Your task to perform on an android device: toggle notification dots Image 0: 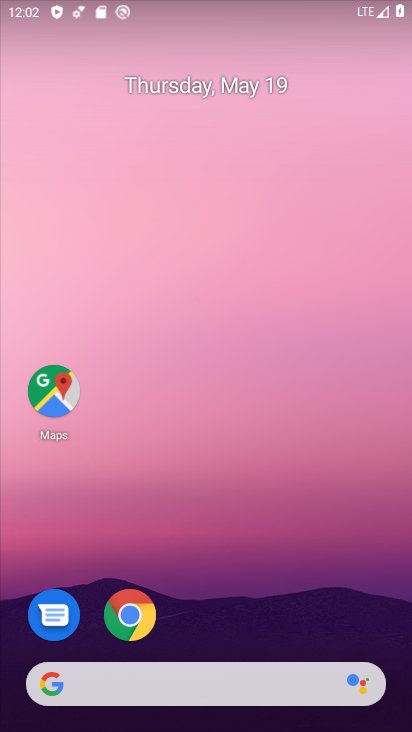
Step 0: click (284, 19)
Your task to perform on an android device: toggle notification dots Image 1: 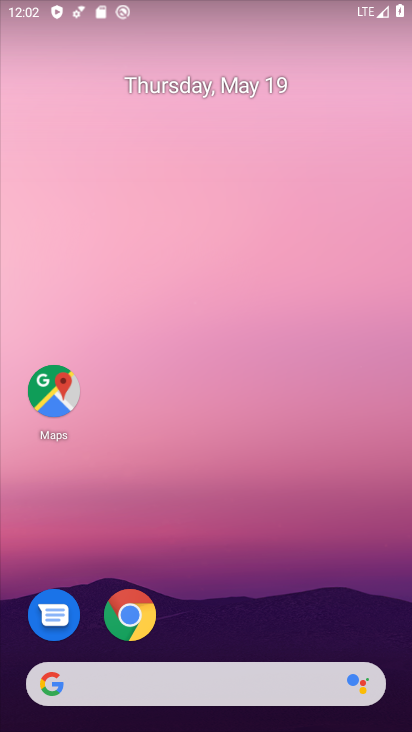
Step 1: drag from (221, 445) to (211, 9)
Your task to perform on an android device: toggle notification dots Image 2: 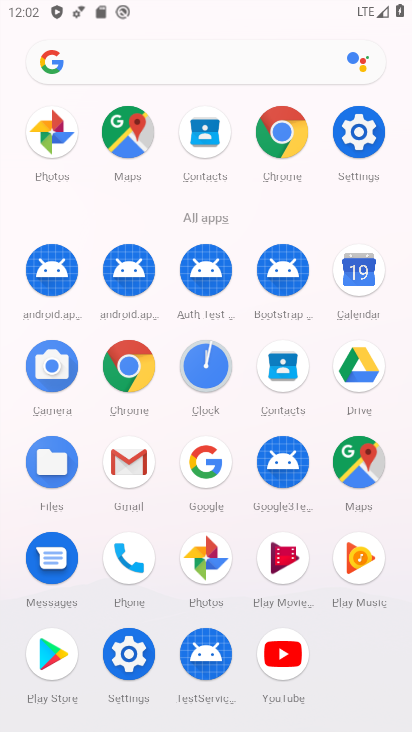
Step 2: drag from (4, 569) to (2, 291)
Your task to perform on an android device: toggle notification dots Image 3: 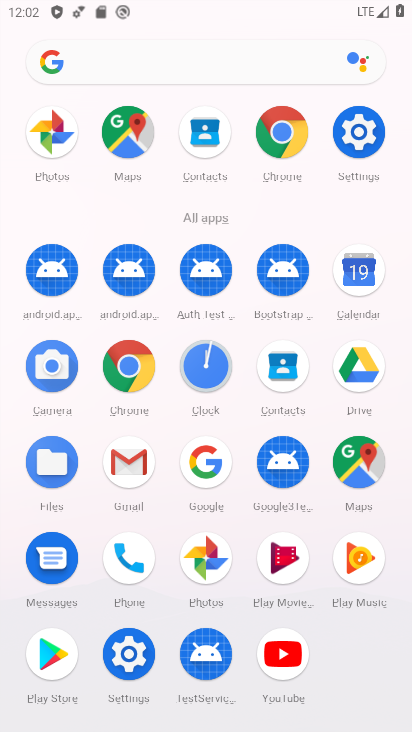
Step 3: click (126, 652)
Your task to perform on an android device: toggle notification dots Image 4: 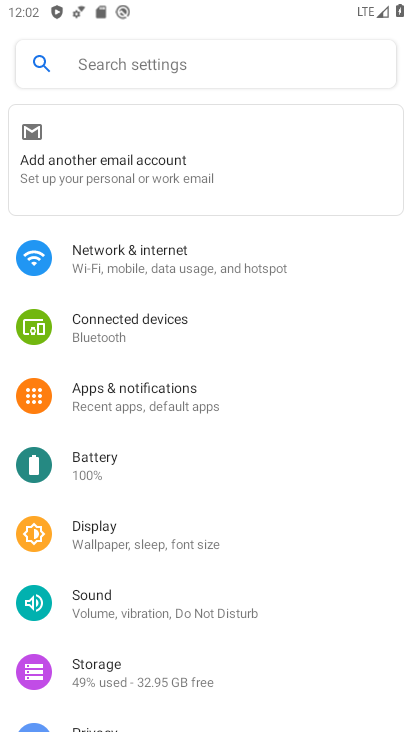
Step 4: drag from (319, 631) to (318, 224)
Your task to perform on an android device: toggle notification dots Image 5: 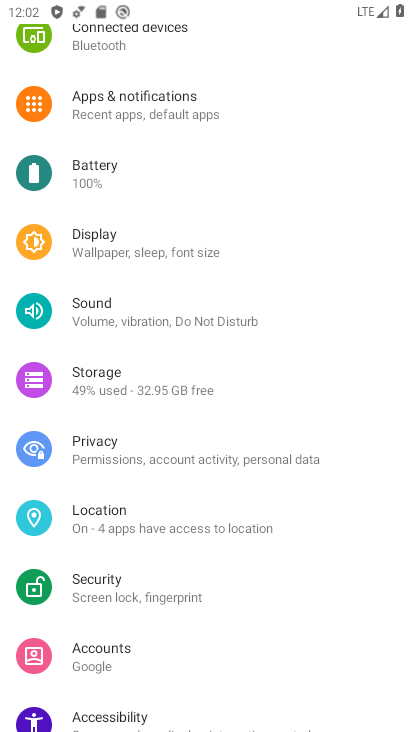
Step 5: click (154, 107)
Your task to perform on an android device: toggle notification dots Image 6: 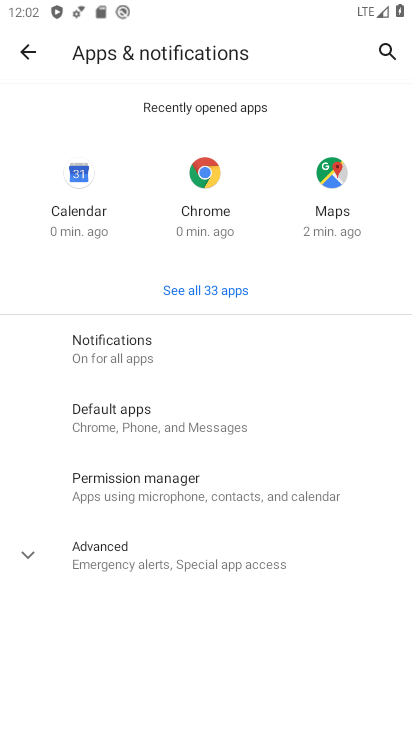
Step 6: click (150, 333)
Your task to perform on an android device: toggle notification dots Image 7: 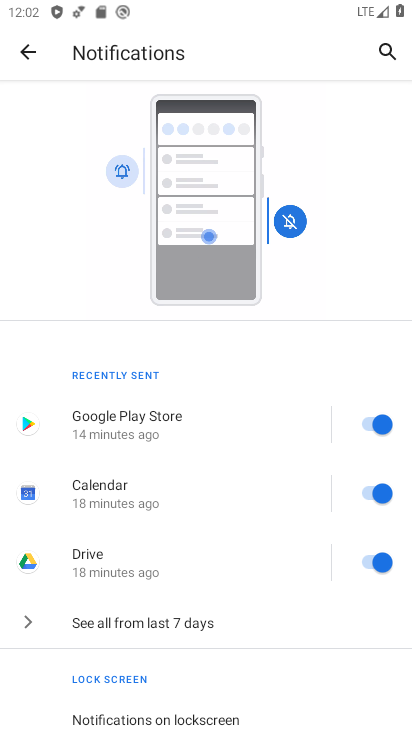
Step 7: drag from (216, 626) to (257, 201)
Your task to perform on an android device: toggle notification dots Image 8: 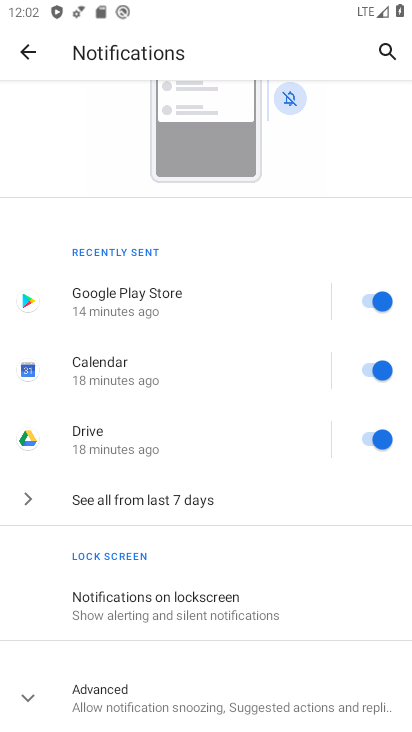
Step 8: click (52, 696)
Your task to perform on an android device: toggle notification dots Image 9: 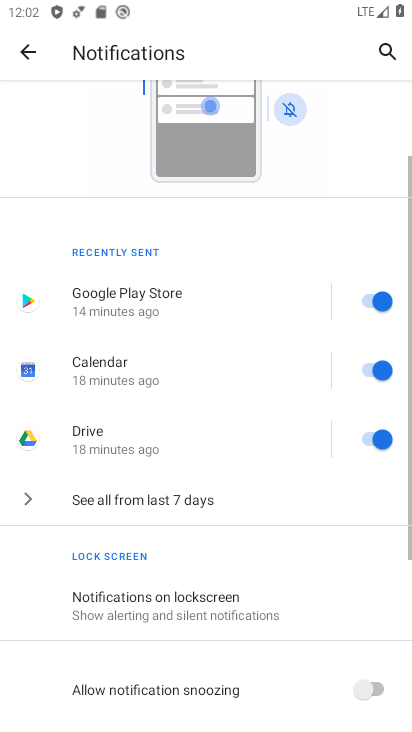
Step 9: drag from (229, 684) to (238, 224)
Your task to perform on an android device: toggle notification dots Image 10: 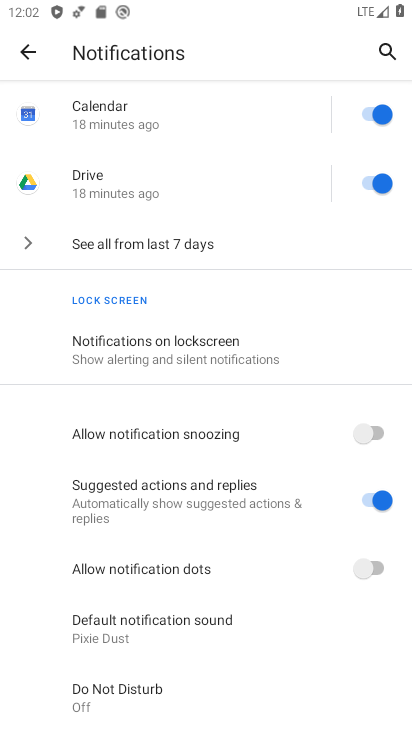
Step 10: click (371, 567)
Your task to perform on an android device: toggle notification dots Image 11: 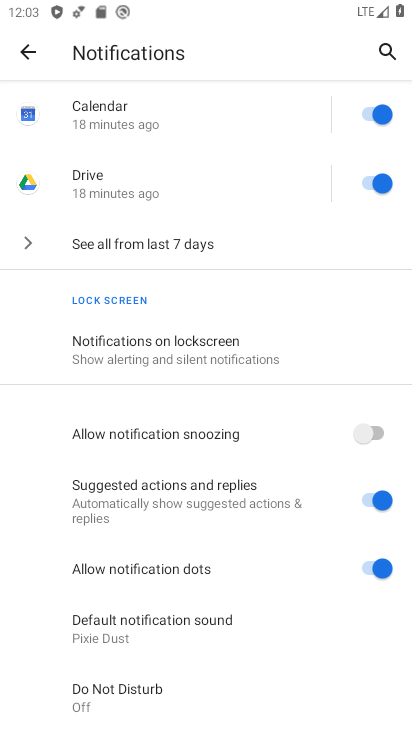
Step 11: task complete